Your task to perform on an android device: change the clock display to show seconds Image 0: 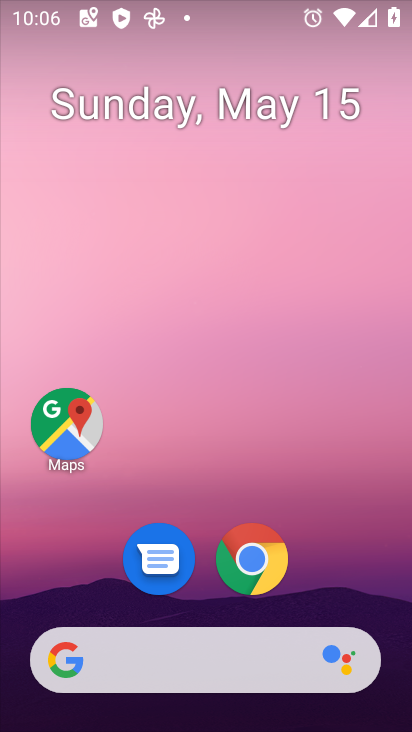
Step 0: drag from (346, 594) to (322, 140)
Your task to perform on an android device: change the clock display to show seconds Image 1: 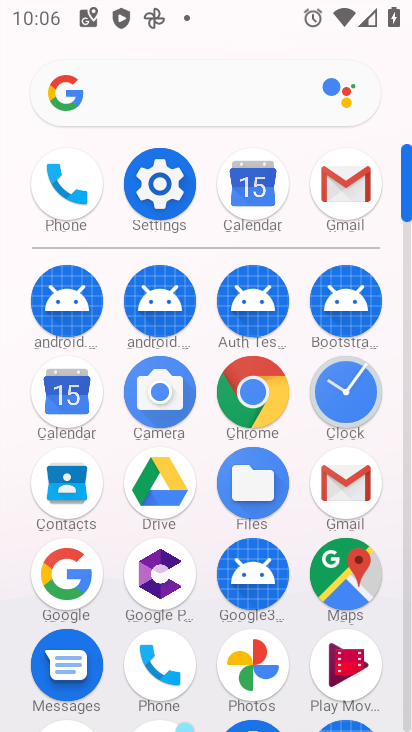
Step 1: click (145, 218)
Your task to perform on an android device: change the clock display to show seconds Image 2: 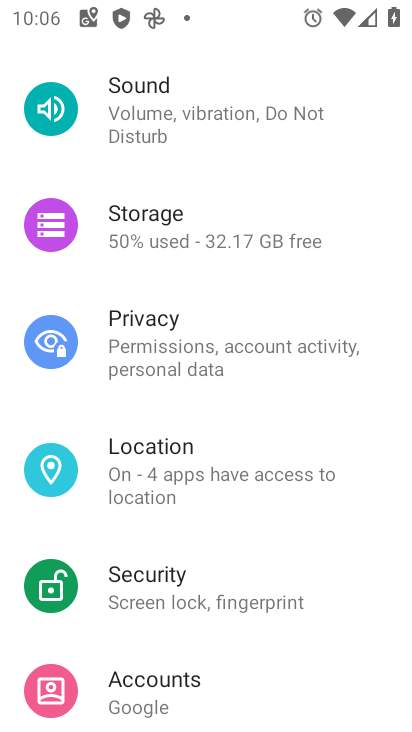
Step 2: drag from (182, 577) to (207, 320)
Your task to perform on an android device: change the clock display to show seconds Image 3: 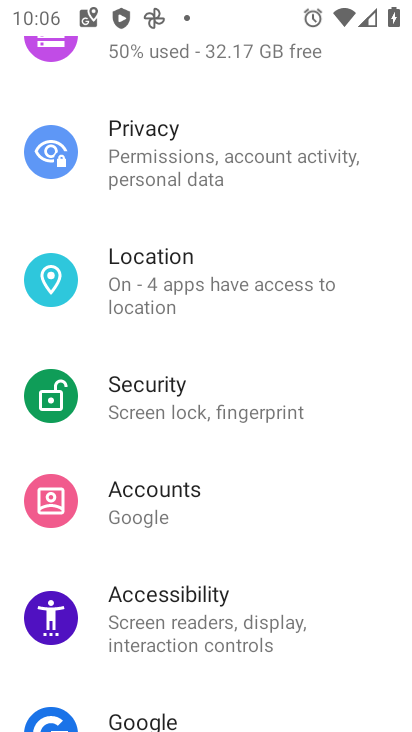
Step 3: press home button
Your task to perform on an android device: change the clock display to show seconds Image 4: 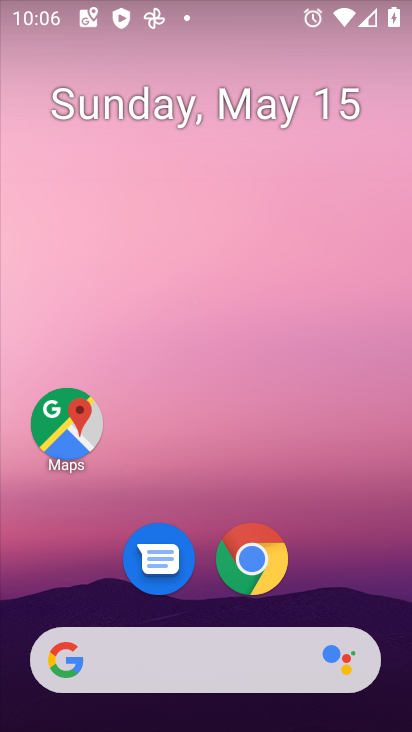
Step 4: drag from (267, 432) to (259, 57)
Your task to perform on an android device: change the clock display to show seconds Image 5: 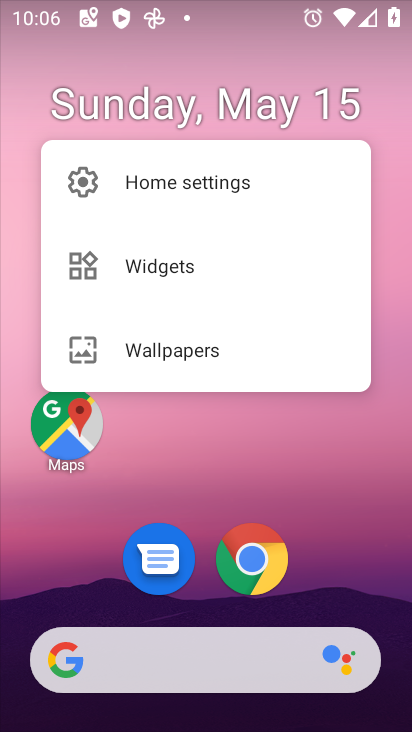
Step 5: click (340, 504)
Your task to perform on an android device: change the clock display to show seconds Image 6: 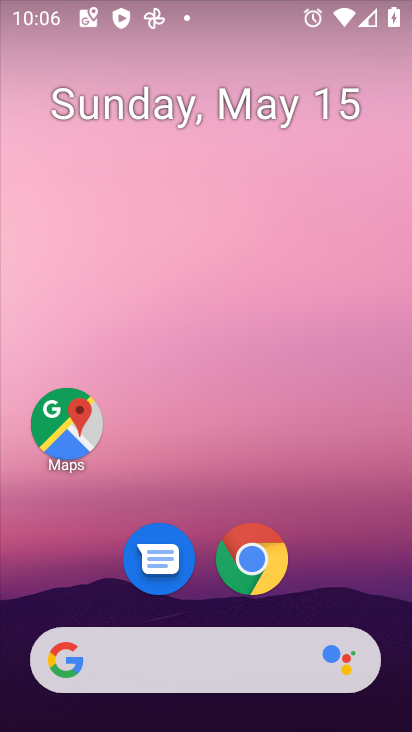
Step 6: drag from (340, 504) to (332, 57)
Your task to perform on an android device: change the clock display to show seconds Image 7: 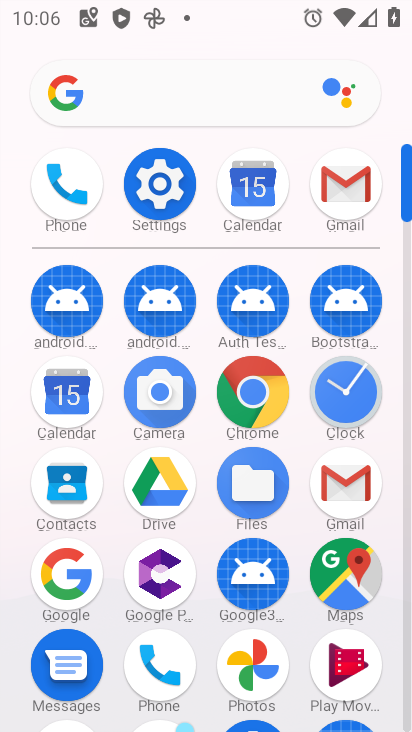
Step 7: click (344, 432)
Your task to perform on an android device: change the clock display to show seconds Image 8: 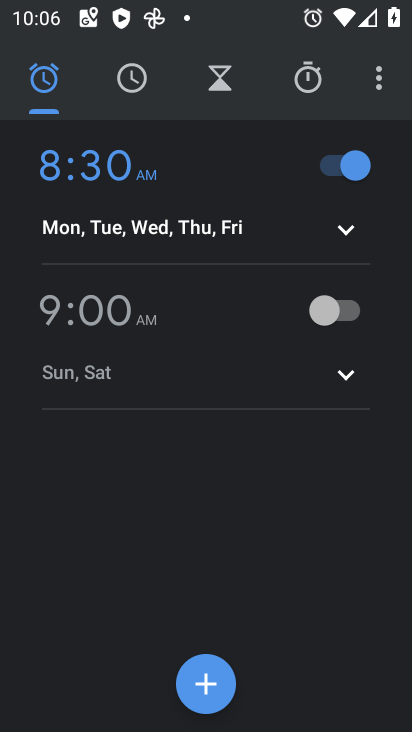
Step 8: click (379, 95)
Your task to perform on an android device: change the clock display to show seconds Image 9: 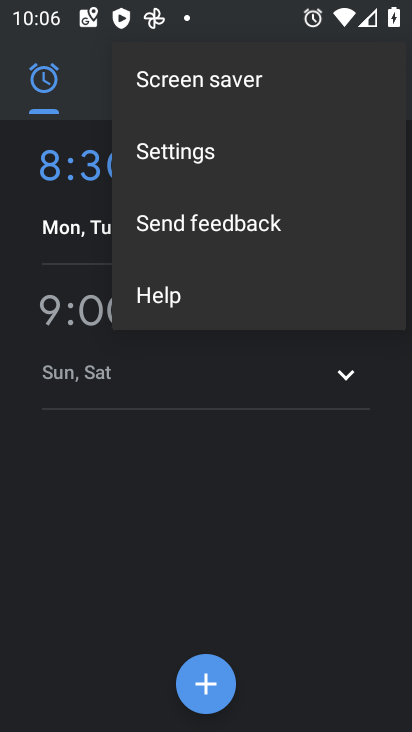
Step 9: click (281, 141)
Your task to perform on an android device: change the clock display to show seconds Image 10: 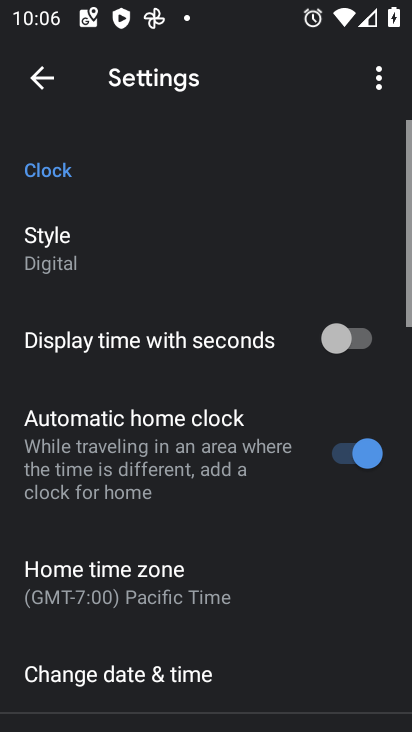
Step 10: click (132, 247)
Your task to perform on an android device: change the clock display to show seconds Image 11: 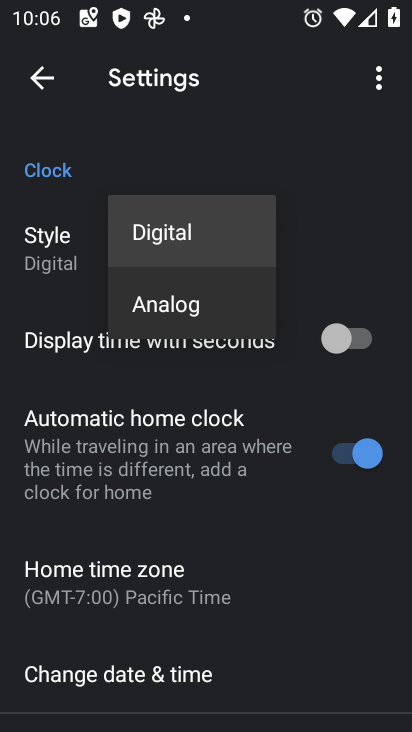
Step 11: click (133, 153)
Your task to perform on an android device: change the clock display to show seconds Image 12: 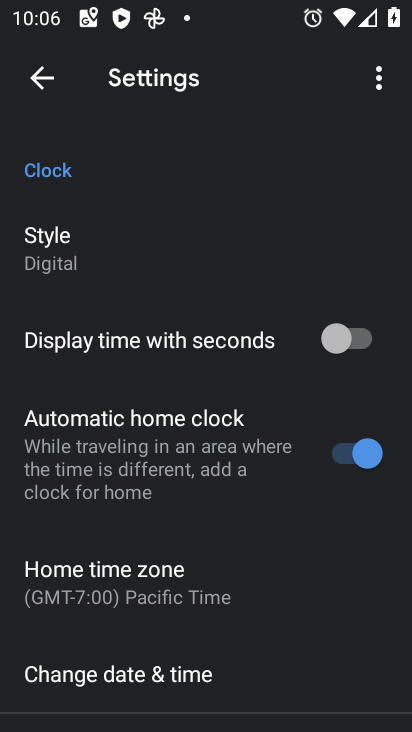
Step 12: click (350, 353)
Your task to perform on an android device: change the clock display to show seconds Image 13: 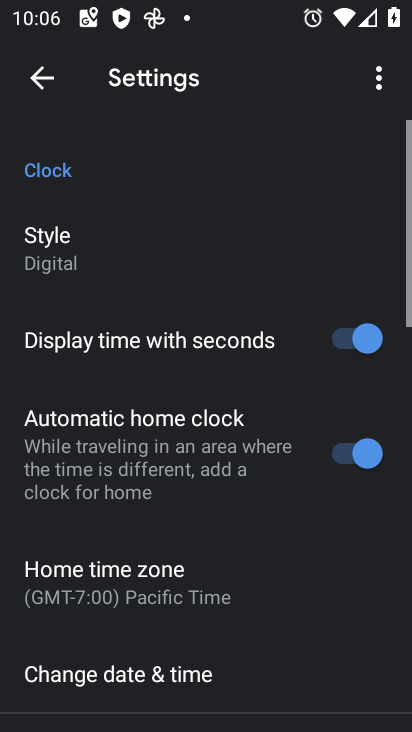
Step 13: task complete